Your task to perform on an android device: Open ESPN.com Image 0: 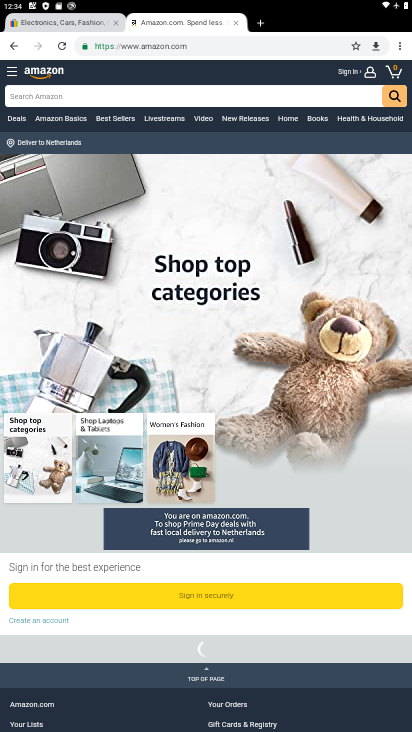
Step 0: click (306, 54)
Your task to perform on an android device: Open ESPN.com Image 1: 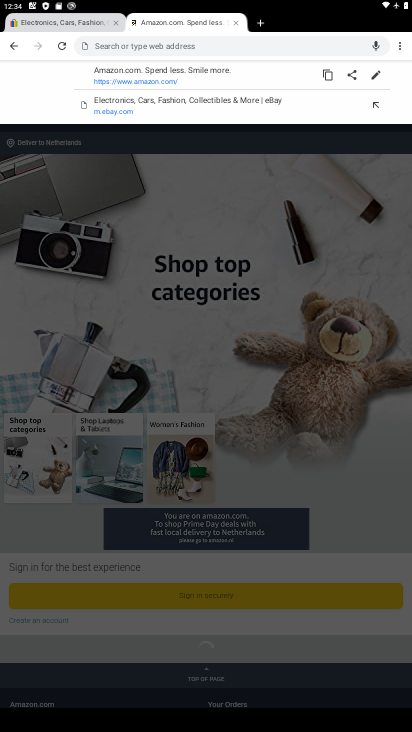
Step 1: type "espn.com"
Your task to perform on an android device: Open ESPN.com Image 2: 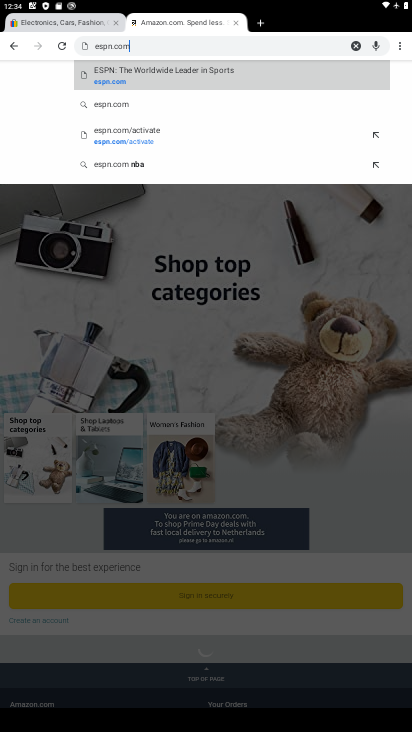
Step 2: click (148, 81)
Your task to perform on an android device: Open ESPN.com Image 3: 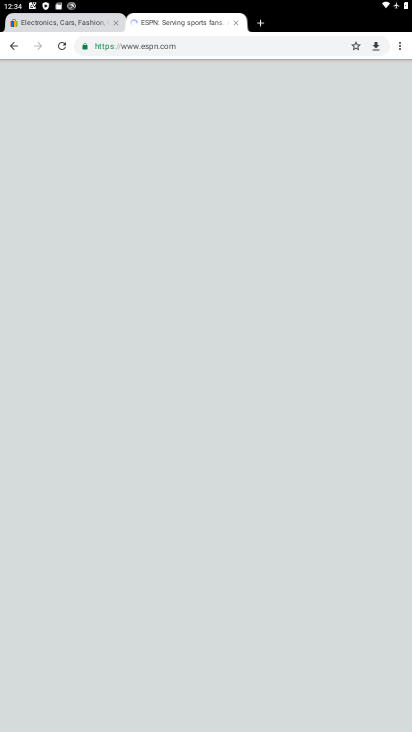
Step 3: task complete